Your task to perform on an android device: Is it going to rain tomorrow? Image 0: 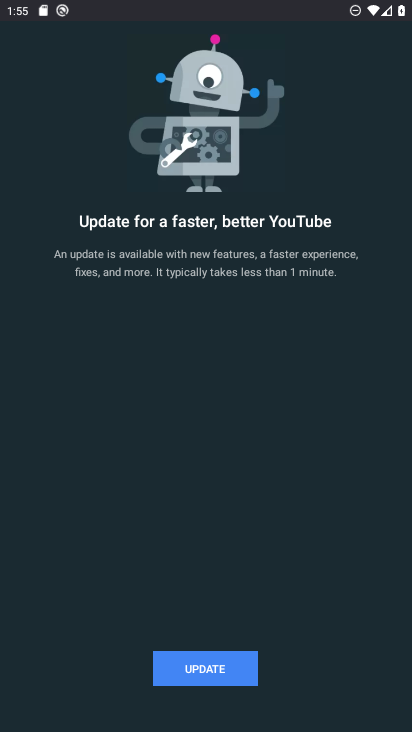
Step 0: press home button
Your task to perform on an android device: Is it going to rain tomorrow? Image 1: 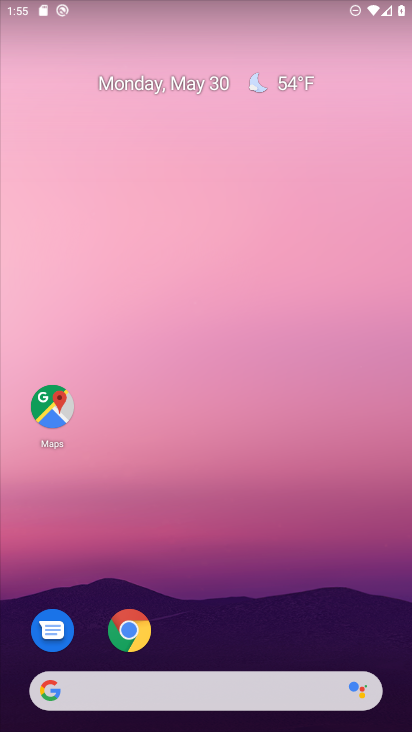
Step 1: drag from (231, 680) to (328, 100)
Your task to perform on an android device: Is it going to rain tomorrow? Image 2: 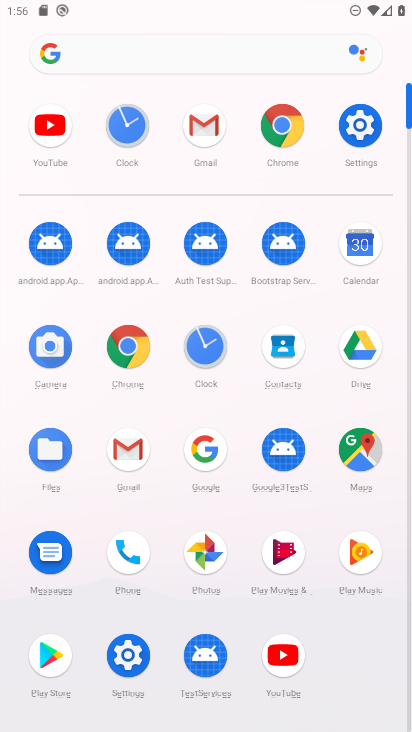
Step 2: click (209, 463)
Your task to perform on an android device: Is it going to rain tomorrow? Image 3: 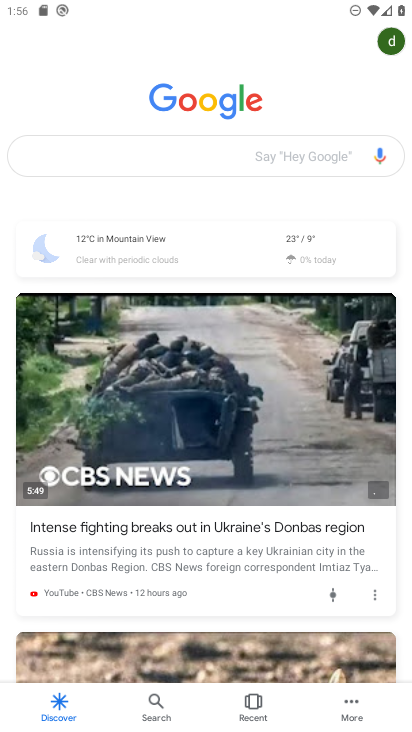
Step 3: click (50, 251)
Your task to perform on an android device: Is it going to rain tomorrow? Image 4: 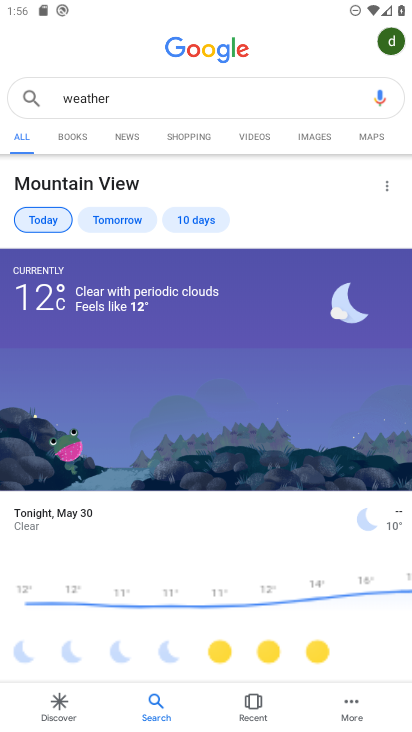
Step 4: click (128, 220)
Your task to perform on an android device: Is it going to rain tomorrow? Image 5: 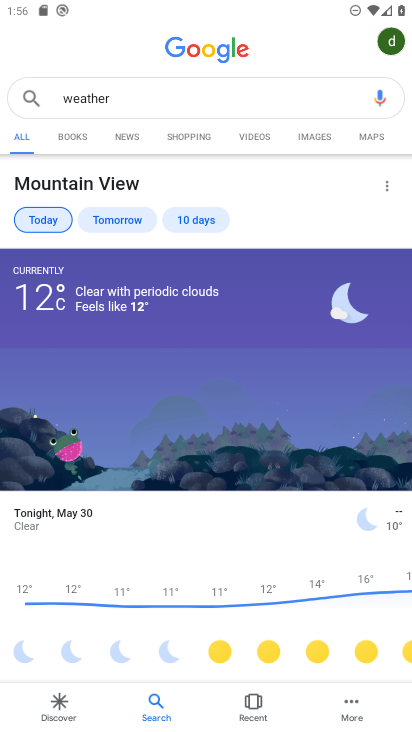
Step 5: task complete